Your task to perform on an android device: turn on translation in the chrome app Image 0: 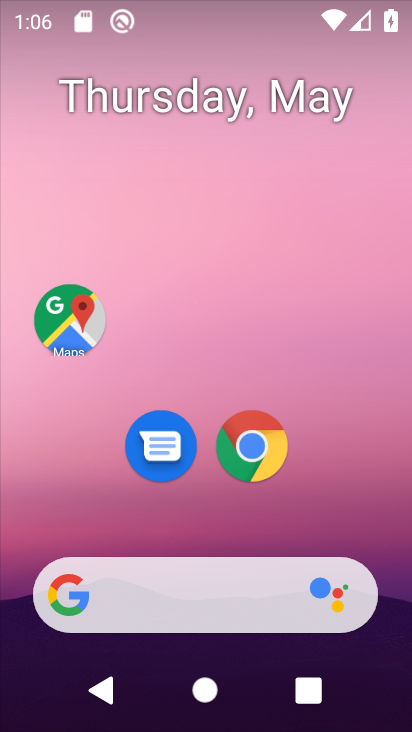
Step 0: click (250, 442)
Your task to perform on an android device: turn on translation in the chrome app Image 1: 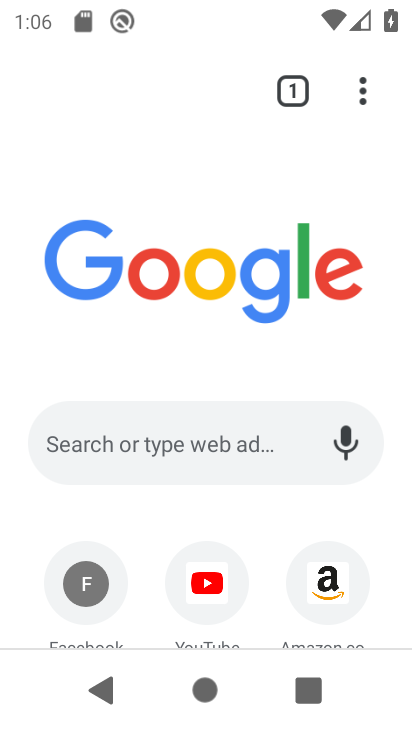
Step 1: click (364, 94)
Your task to perform on an android device: turn on translation in the chrome app Image 2: 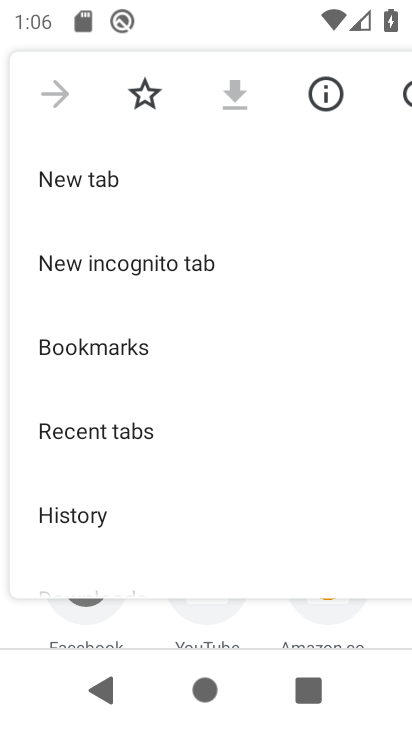
Step 2: drag from (92, 469) to (154, 263)
Your task to perform on an android device: turn on translation in the chrome app Image 3: 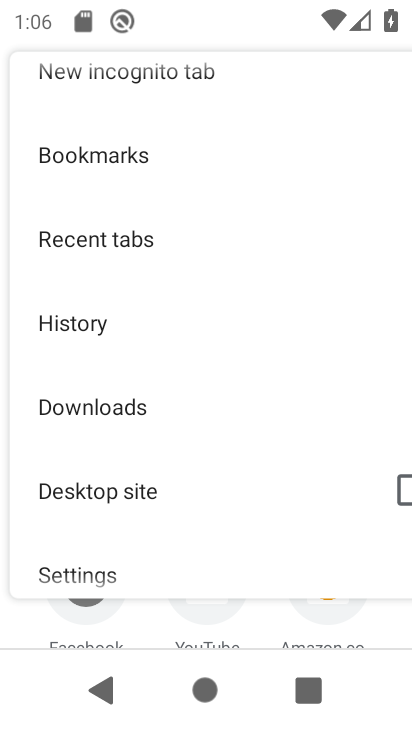
Step 3: drag from (109, 539) to (163, 332)
Your task to perform on an android device: turn on translation in the chrome app Image 4: 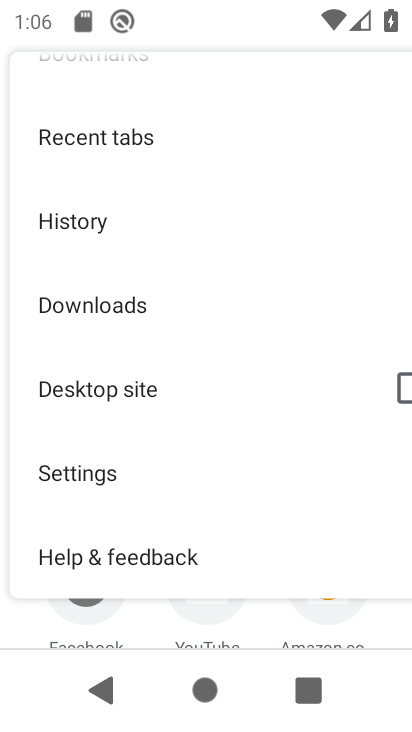
Step 4: click (94, 479)
Your task to perform on an android device: turn on translation in the chrome app Image 5: 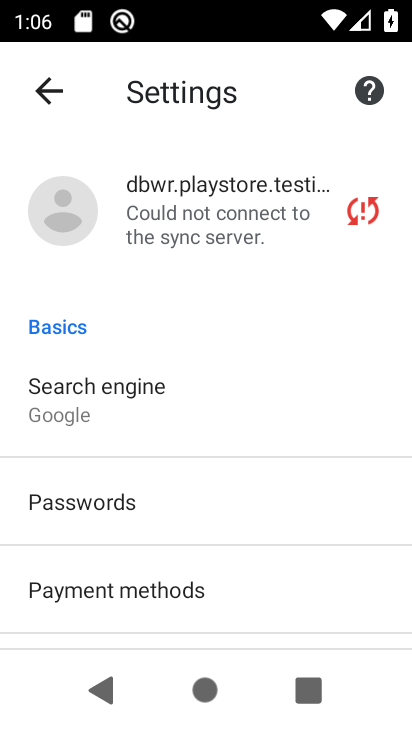
Step 5: drag from (141, 514) to (223, 184)
Your task to perform on an android device: turn on translation in the chrome app Image 6: 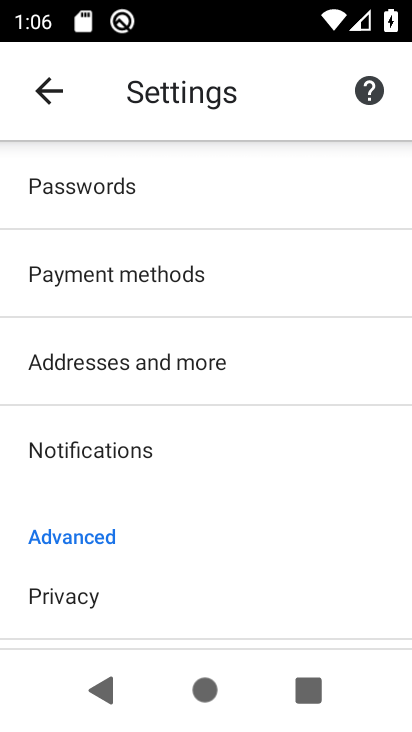
Step 6: drag from (109, 536) to (152, 267)
Your task to perform on an android device: turn on translation in the chrome app Image 7: 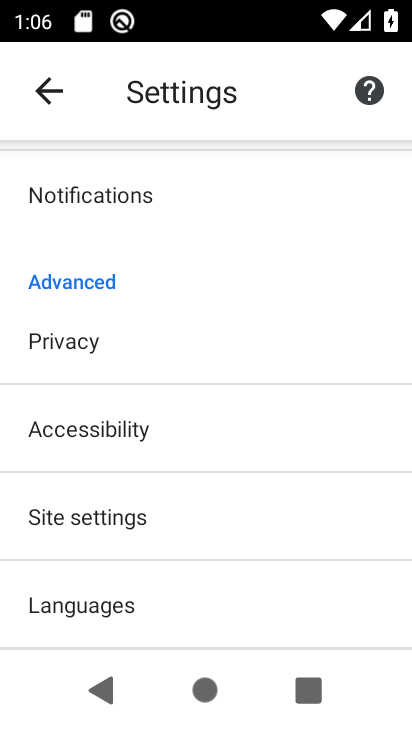
Step 7: drag from (96, 568) to (118, 391)
Your task to perform on an android device: turn on translation in the chrome app Image 8: 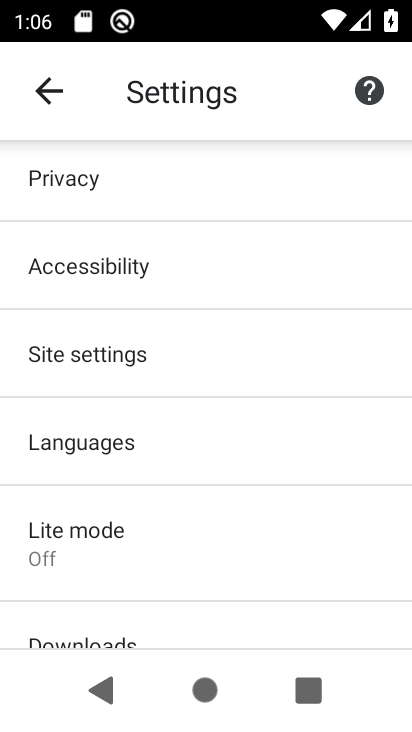
Step 8: click (104, 453)
Your task to perform on an android device: turn on translation in the chrome app Image 9: 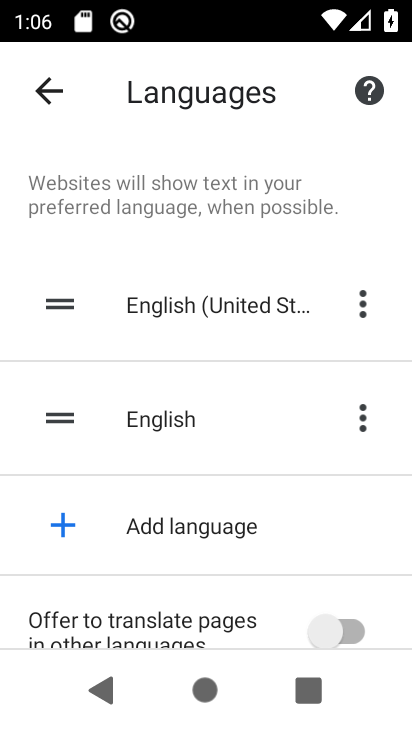
Step 9: drag from (278, 560) to (305, 410)
Your task to perform on an android device: turn on translation in the chrome app Image 10: 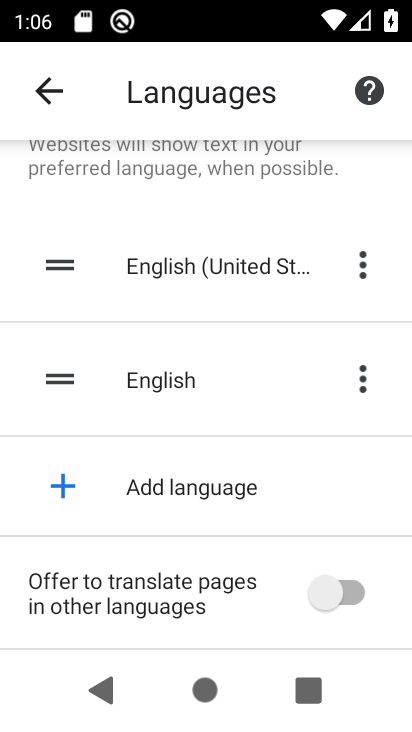
Step 10: click (353, 592)
Your task to perform on an android device: turn on translation in the chrome app Image 11: 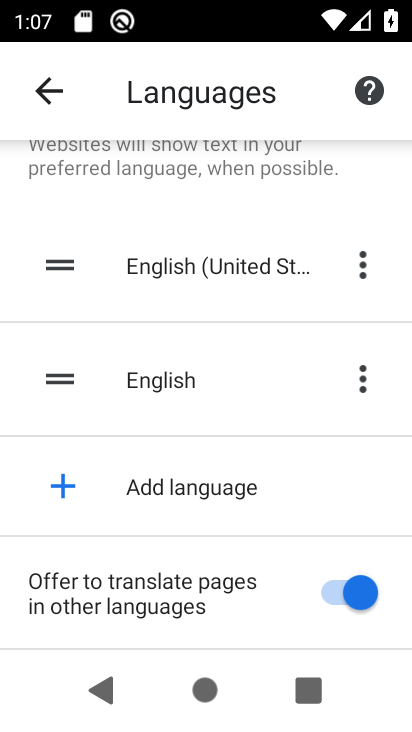
Step 11: task complete